Your task to perform on an android device: toggle show notifications on the lock screen Image 0: 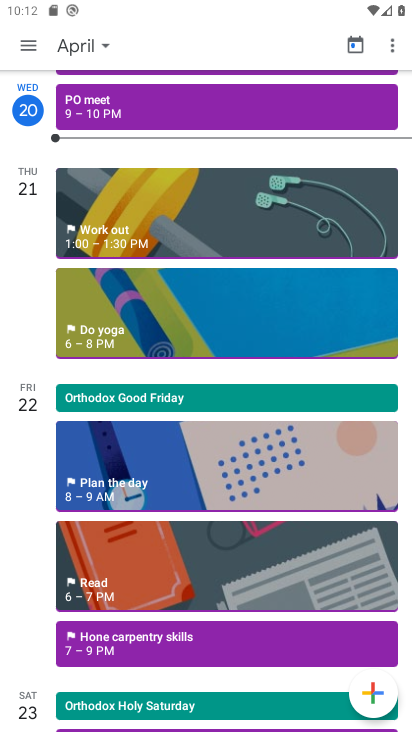
Step 0: press home button
Your task to perform on an android device: toggle show notifications on the lock screen Image 1: 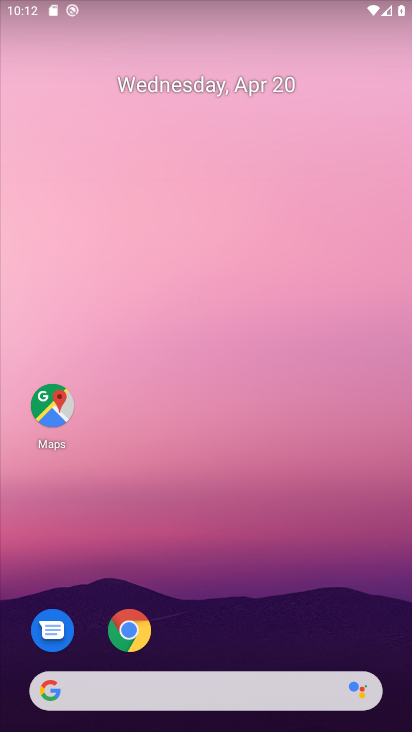
Step 1: drag from (200, 642) to (246, 182)
Your task to perform on an android device: toggle show notifications on the lock screen Image 2: 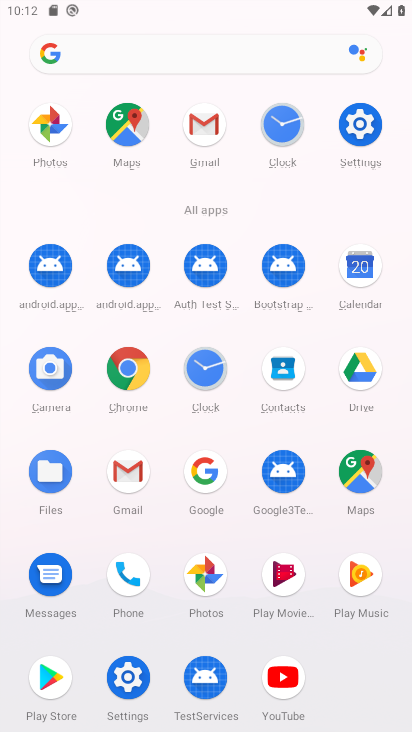
Step 2: click (364, 119)
Your task to perform on an android device: toggle show notifications on the lock screen Image 3: 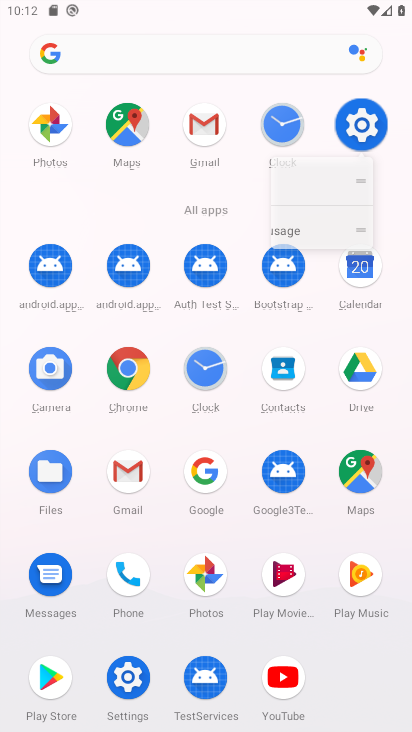
Step 3: click (364, 119)
Your task to perform on an android device: toggle show notifications on the lock screen Image 4: 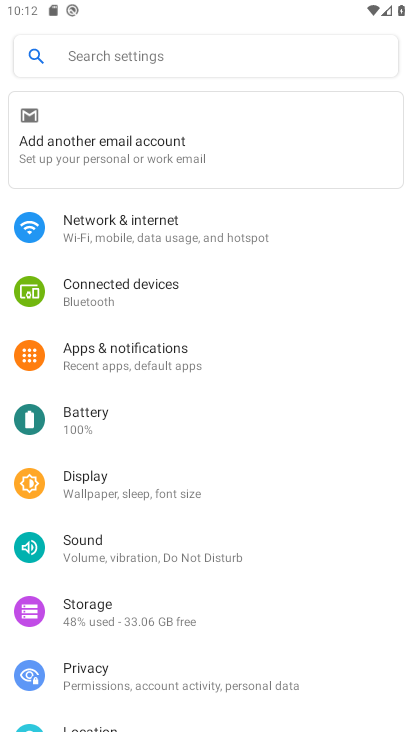
Step 4: click (164, 345)
Your task to perform on an android device: toggle show notifications on the lock screen Image 5: 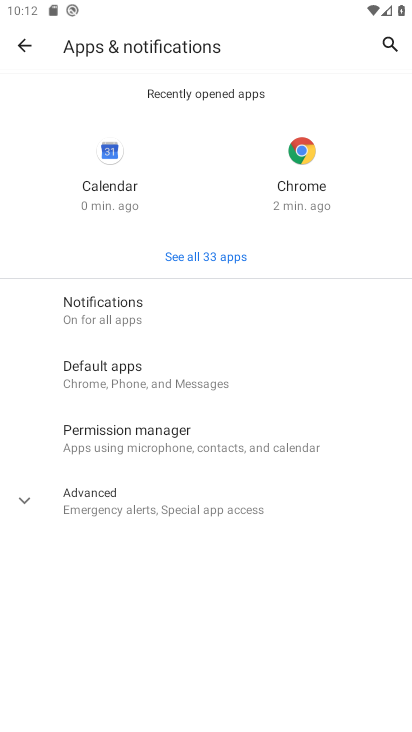
Step 5: click (165, 293)
Your task to perform on an android device: toggle show notifications on the lock screen Image 6: 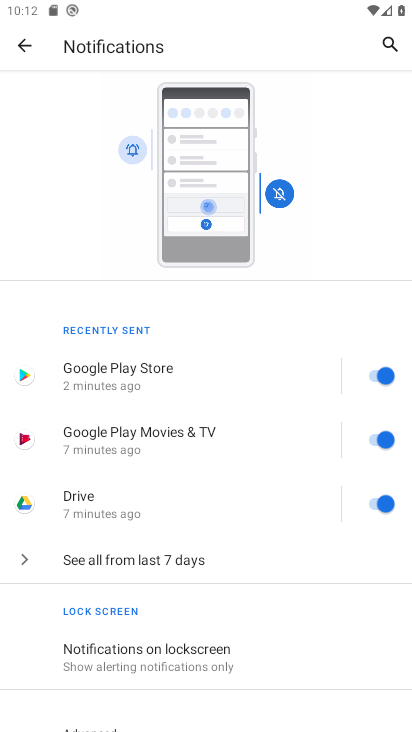
Step 6: drag from (256, 600) to (273, 264)
Your task to perform on an android device: toggle show notifications on the lock screen Image 7: 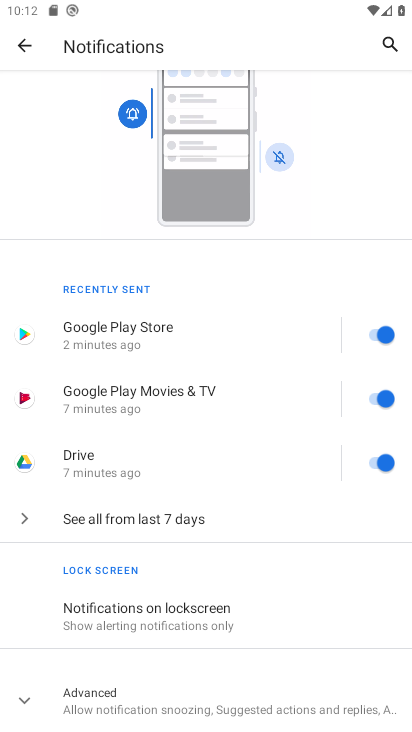
Step 7: click (192, 610)
Your task to perform on an android device: toggle show notifications on the lock screen Image 8: 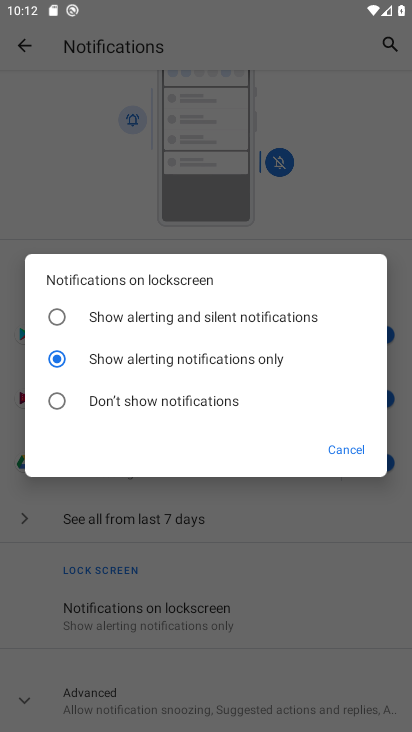
Step 8: click (146, 388)
Your task to perform on an android device: toggle show notifications on the lock screen Image 9: 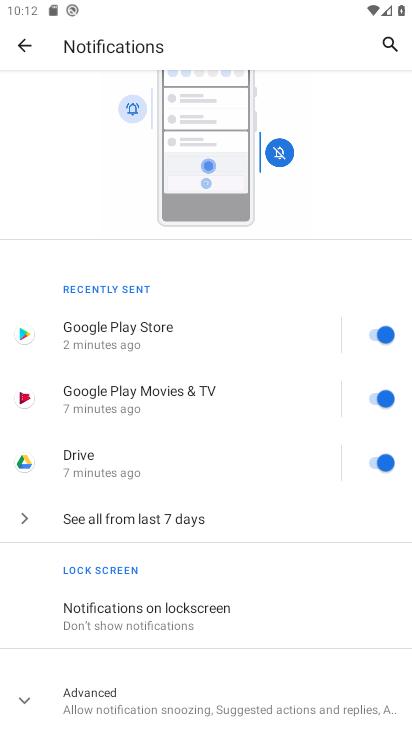
Step 9: task complete